Your task to perform on an android device: Search for pizza restaurants on Maps Image 0: 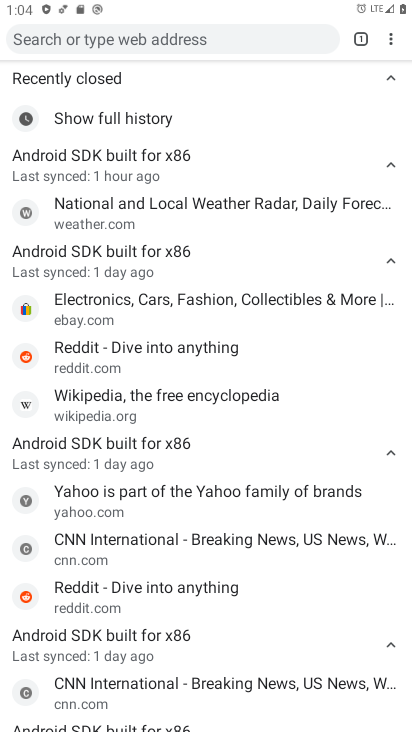
Step 0: press home button
Your task to perform on an android device: Search for pizza restaurants on Maps Image 1: 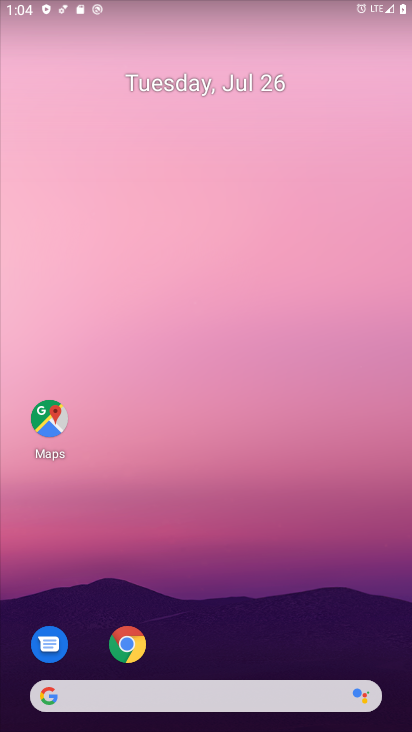
Step 1: click (63, 427)
Your task to perform on an android device: Search for pizza restaurants on Maps Image 2: 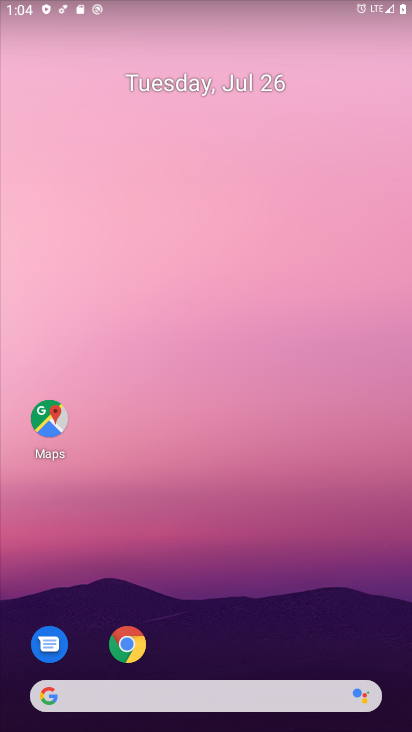
Step 2: click (63, 427)
Your task to perform on an android device: Search for pizza restaurants on Maps Image 3: 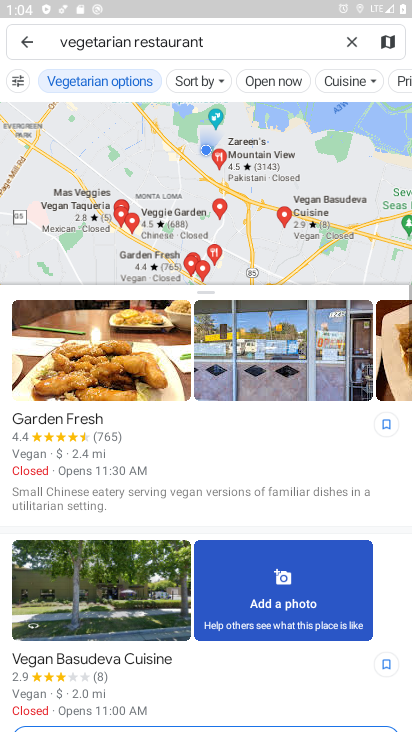
Step 3: click (349, 40)
Your task to perform on an android device: Search for pizza restaurants on Maps Image 4: 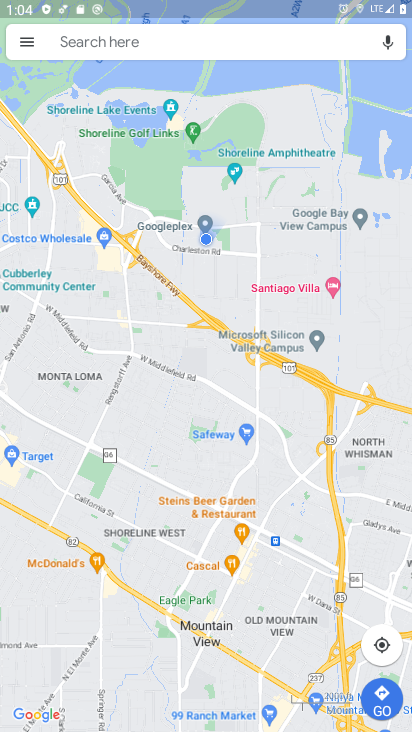
Step 4: click (288, 46)
Your task to perform on an android device: Search for pizza restaurants on Maps Image 5: 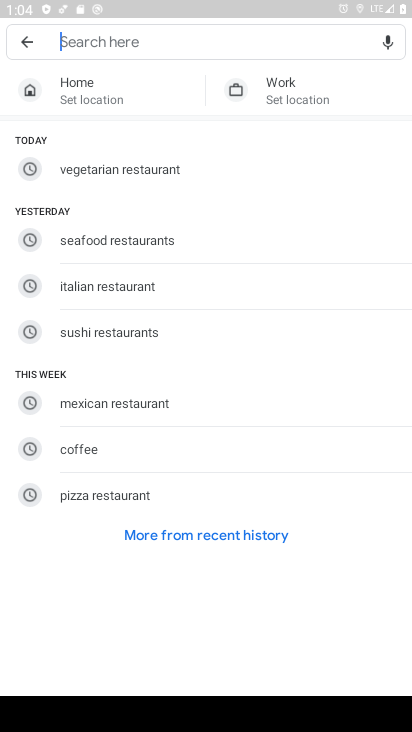
Step 5: click (92, 496)
Your task to perform on an android device: Search for pizza restaurants on Maps Image 6: 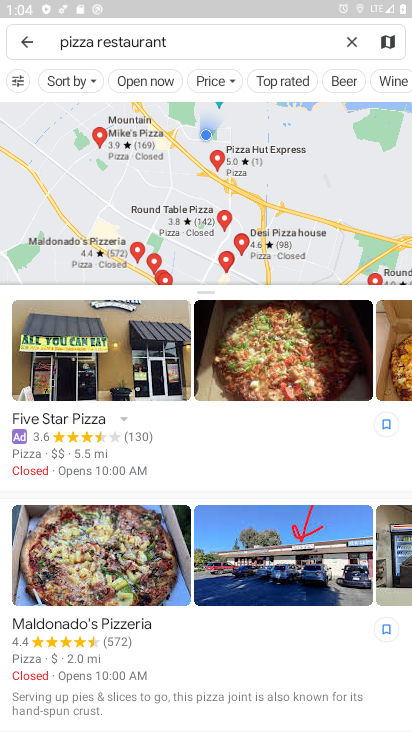
Step 6: task complete